Your task to perform on an android device: change the clock style Image 0: 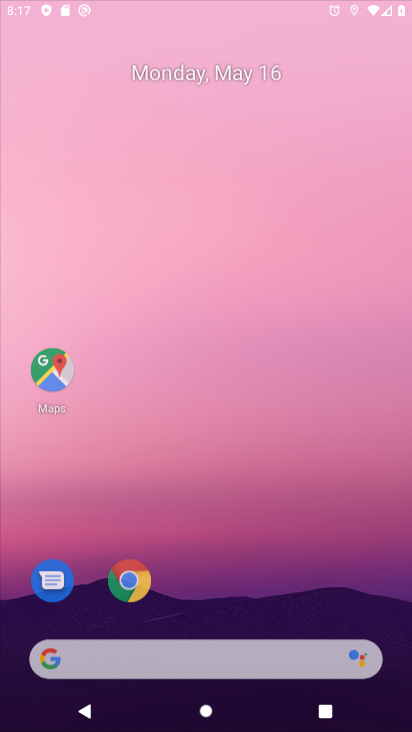
Step 0: click (131, 257)
Your task to perform on an android device: change the clock style Image 1: 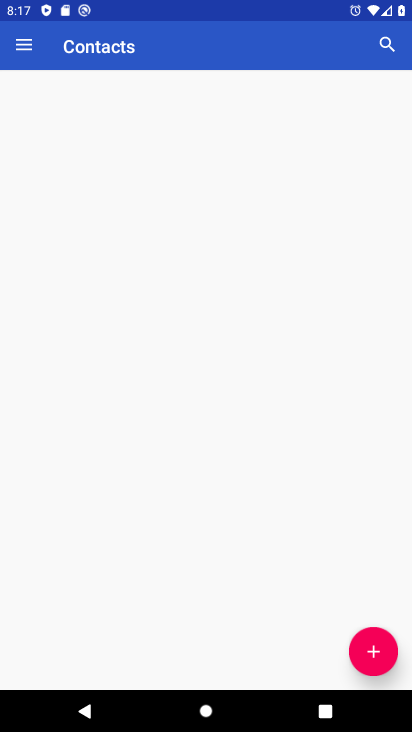
Step 1: drag from (280, 604) to (259, 205)
Your task to perform on an android device: change the clock style Image 2: 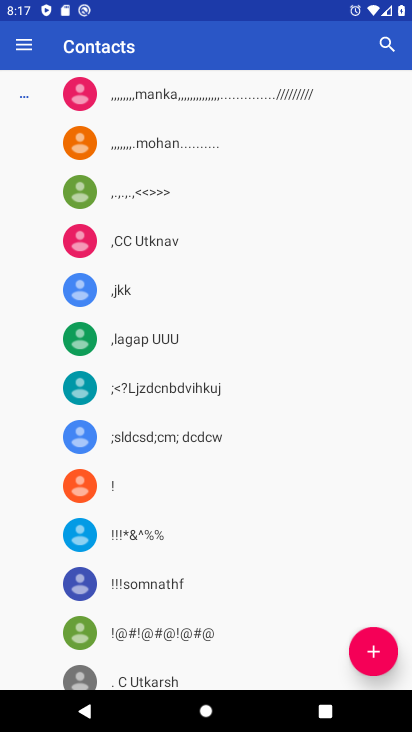
Step 2: press back button
Your task to perform on an android device: change the clock style Image 3: 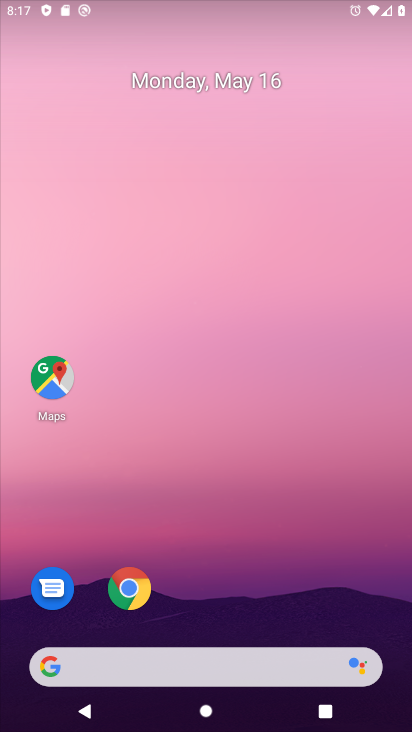
Step 3: drag from (291, 684) to (225, 152)
Your task to perform on an android device: change the clock style Image 4: 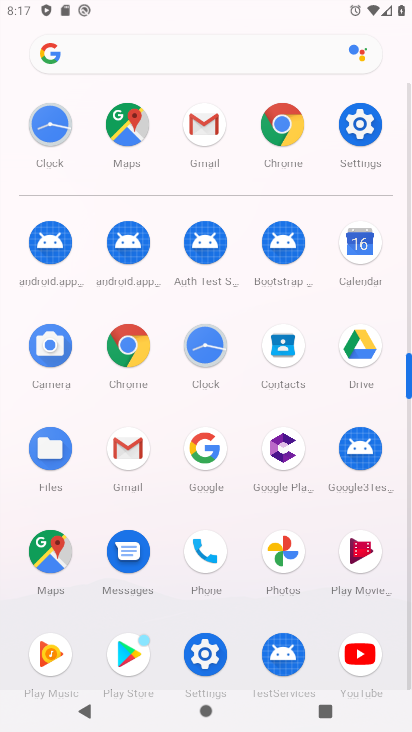
Step 4: click (211, 334)
Your task to perform on an android device: change the clock style Image 5: 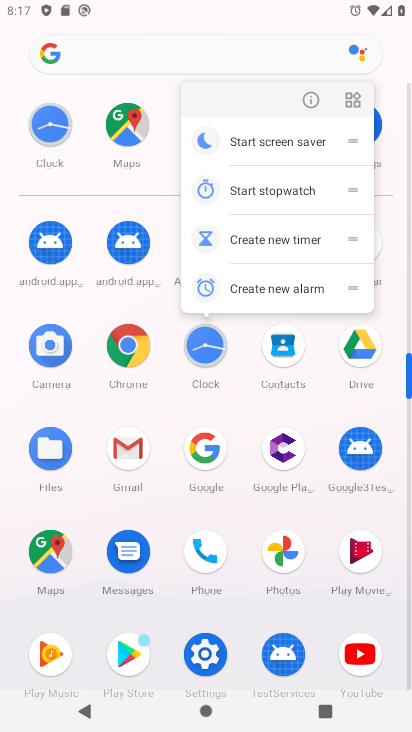
Step 5: click (205, 354)
Your task to perform on an android device: change the clock style Image 6: 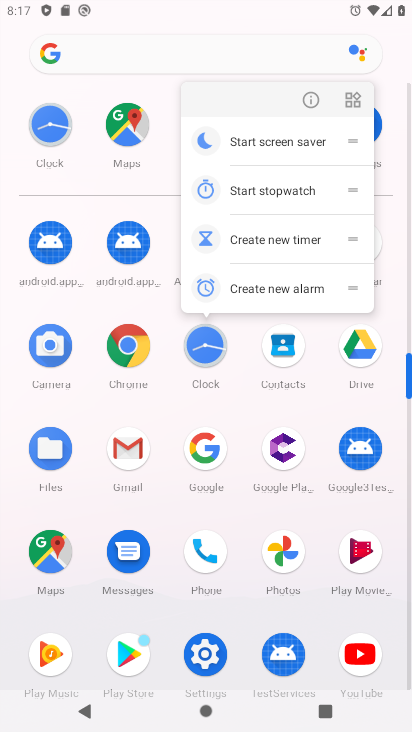
Step 6: click (196, 346)
Your task to perform on an android device: change the clock style Image 7: 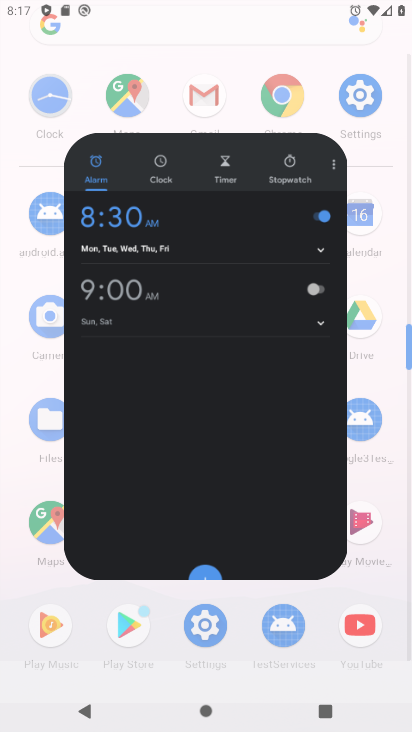
Step 7: click (202, 339)
Your task to perform on an android device: change the clock style Image 8: 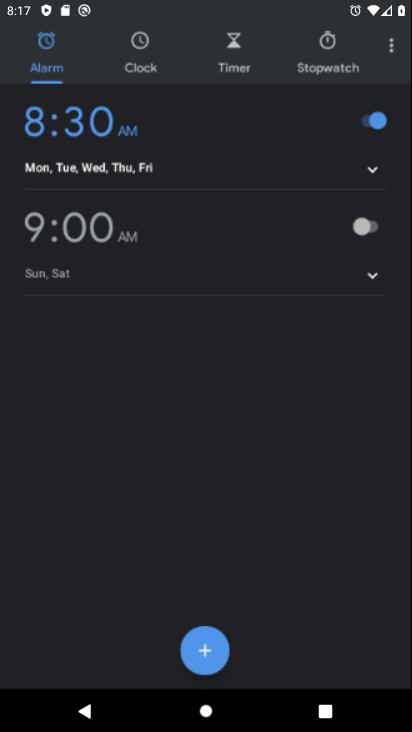
Step 8: click (201, 341)
Your task to perform on an android device: change the clock style Image 9: 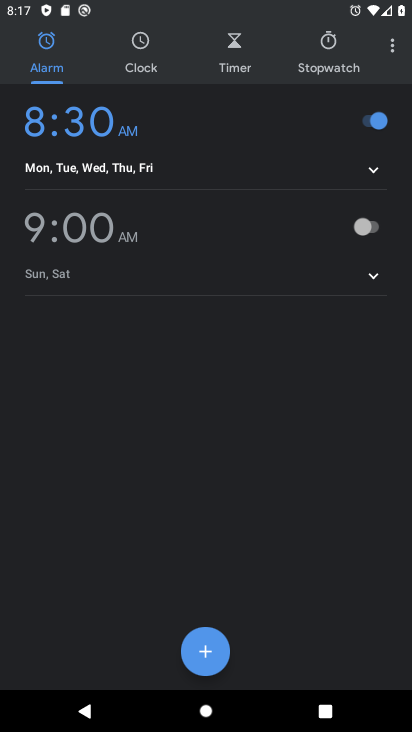
Step 9: click (129, 37)
Your task to perform on an android device: change the clock style Image 10: 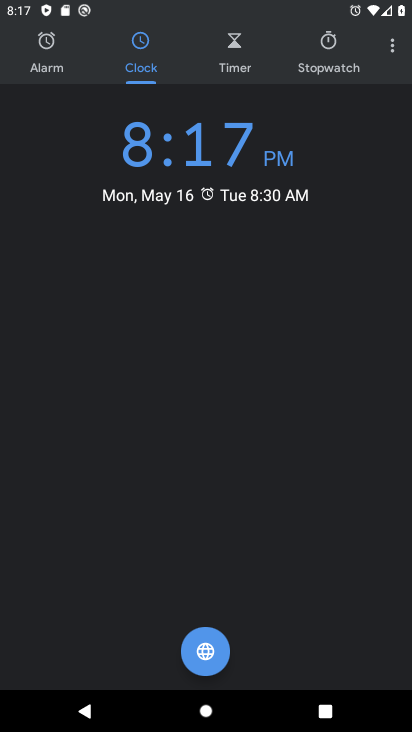
Step 10: click (397, 48)
Your task to perform on an android device: change the clock style Image 11: 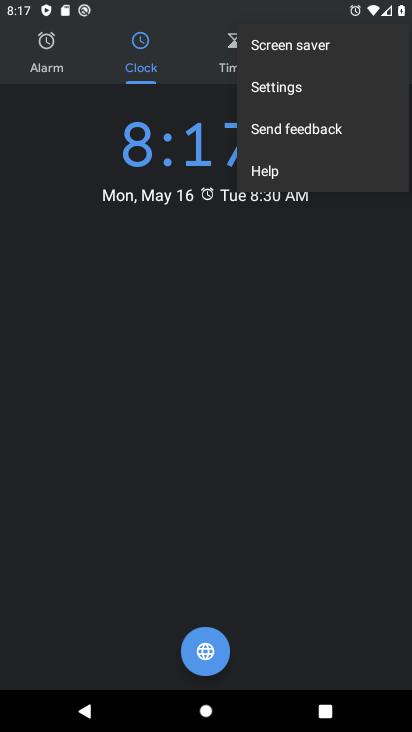
Step 11: click (315, 87)
Your task to perform on an android device: change the clock style Image 12: 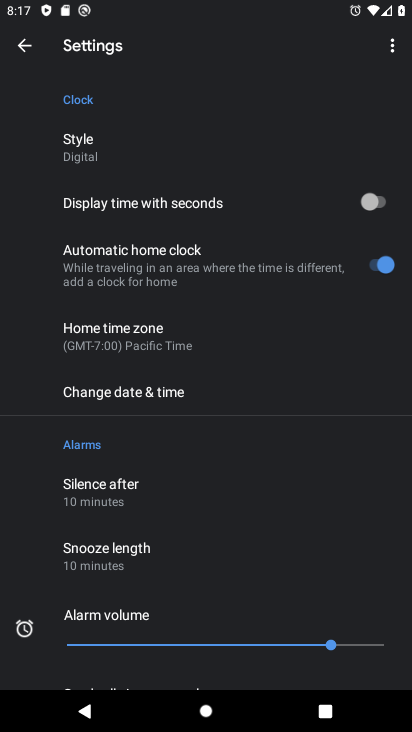
Step 12: click (165, 127)
Your task to perform on an android device: change the clock style Image 13: 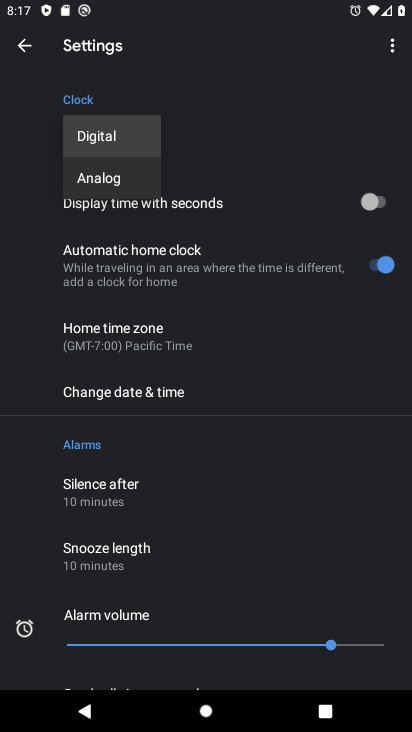
Step 13: click (129, 187)
Your task to perform on an android device: change the clock style Image 14: 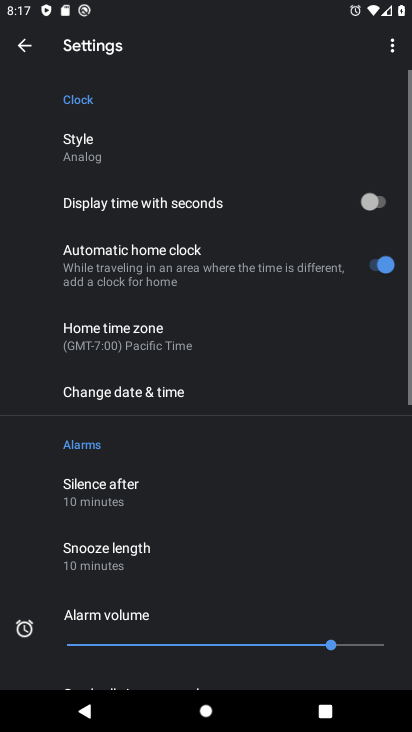
Step 14: task complete